Your task to perform on an android device: Go to network settings Image 0: 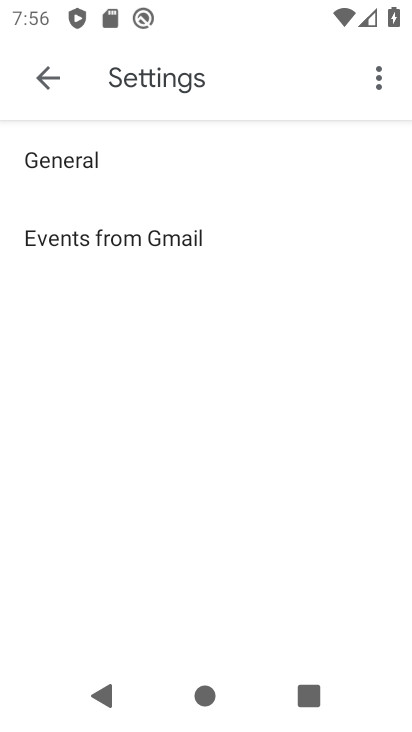
Step 0: press home button
Your task to perform on an android device: Go to network settings Image 1: 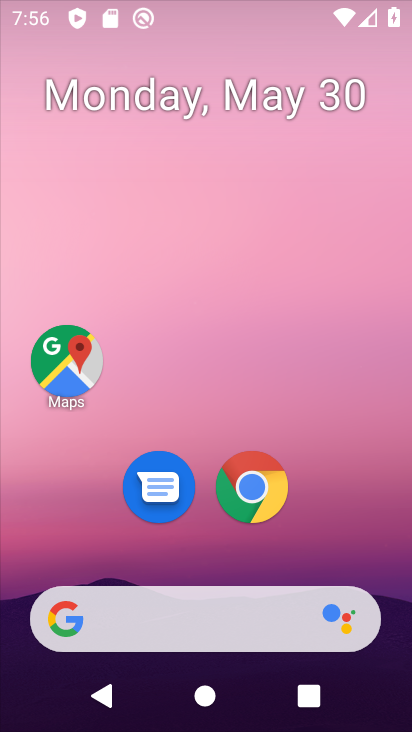
Step 1: drag from (281, 478) to (305, 117)
Your task to perform on an android device: Go to network settings Image 2: 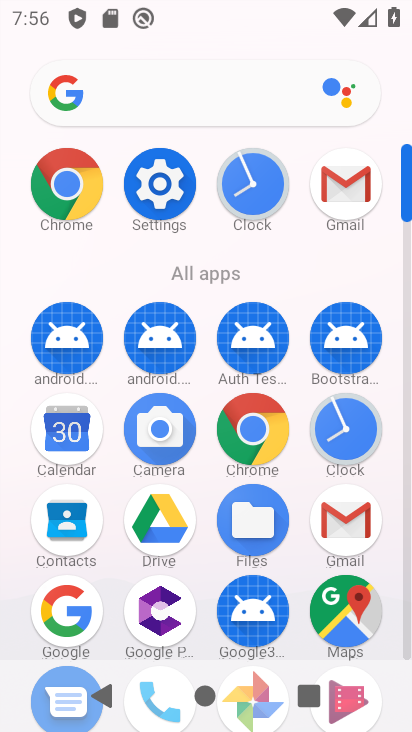
Step 2: click (169, 163)
Your task to perform on an android device: Go to network settings Image 3: 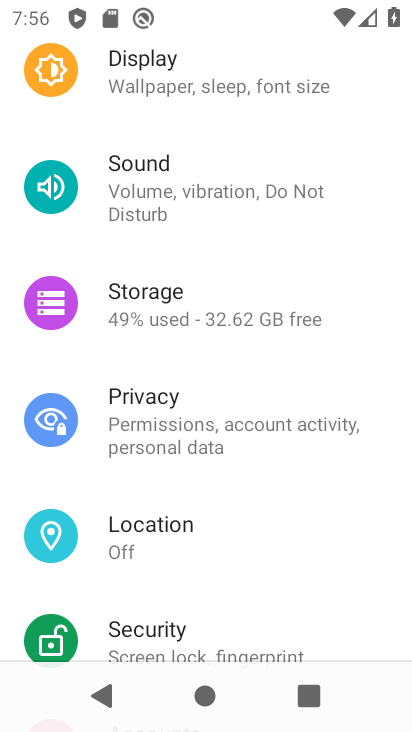
Step 3: drag from (150, 189) to (171, 684)
Your task to perform on an android device: Go to network settings Image 4: 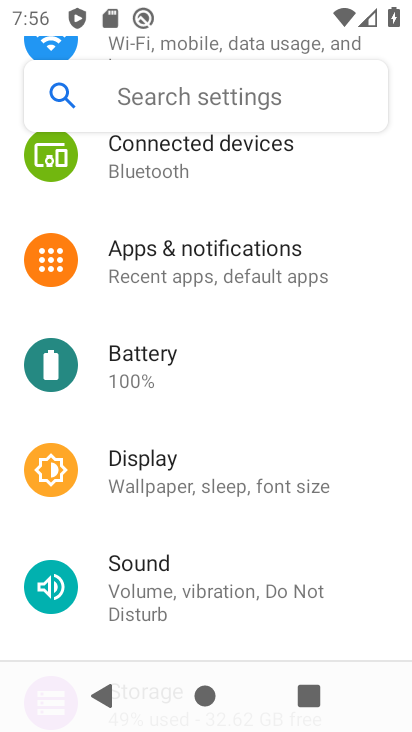
Step 4: drag from (217, 146) to (216, 588)
Your task to perform on an android device: Go to network settings Image 5: 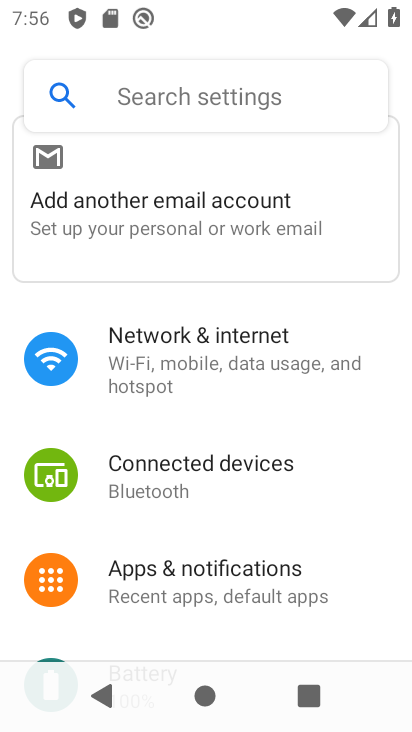
Step 5: click (198, 355)
Your task to perform on an android device: Go to network settings Image 6: 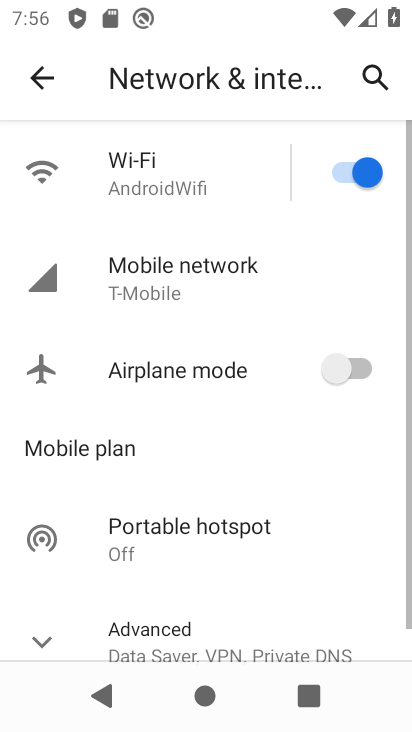
Step 6: task complete